Your task to perform on an android device: visit the assistant section in the google photos Image 0: 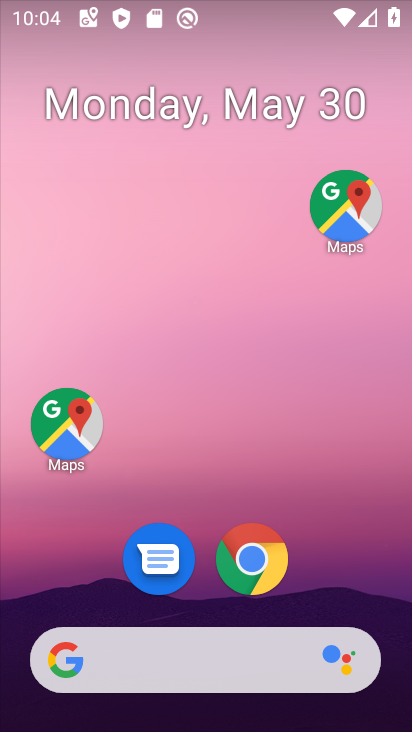
Step 0: drag from (320, 533) to (285, 24)
Your task to perform on an android device: visit the assistant section in the google photos Image 1: 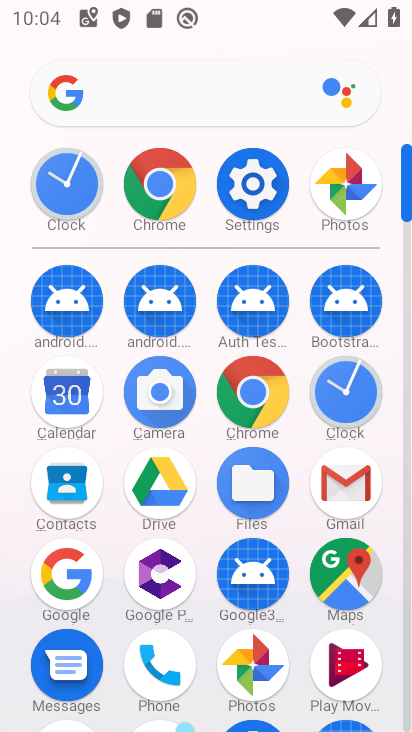
Step 1: click (342, 191)
Your task to perform on an android device: visit the assistant section in the google photos Image 2: 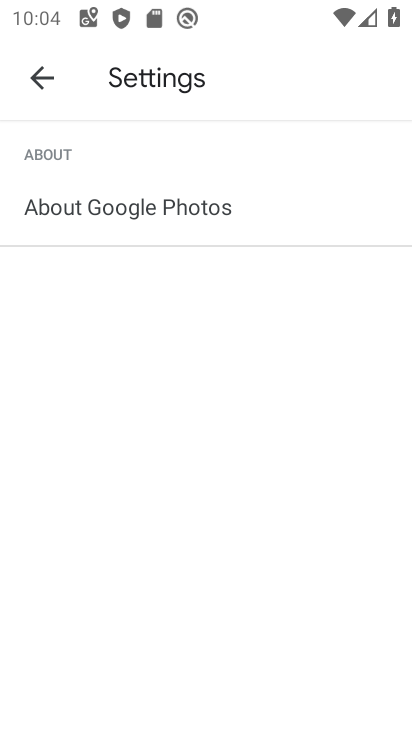
Step 2: click (48, 69)
Your task to perform on an android device: visit the assistant section in the google photos Image 3: 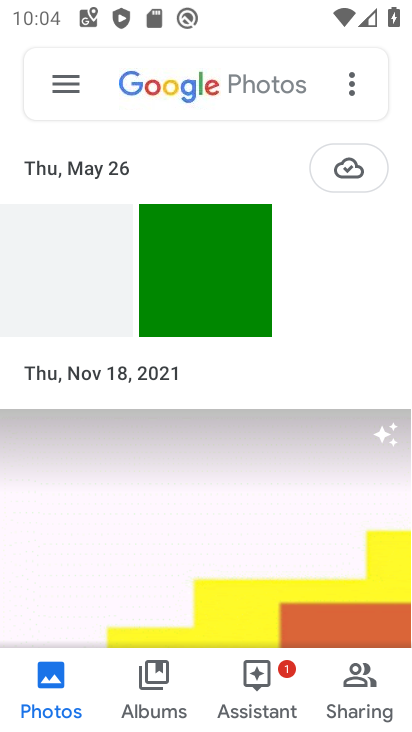
Step 3: click (254, 690)
Your task to perform on an android device: visit the assistant section in the google photos Image 4: 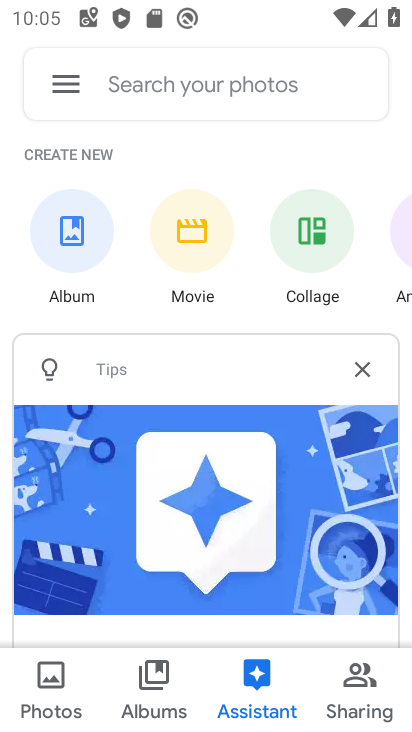
Step 4: task complete